Your task to perform on an android device: delete a single message in the gmail app Image 0: 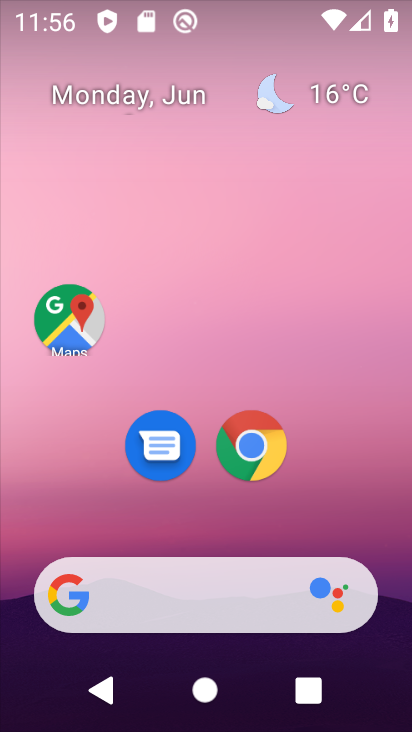
Step 0: drag from (225, 528) to (199, 40)
Your task to perform on an android device: delete a single message in the gmail app Image 1: 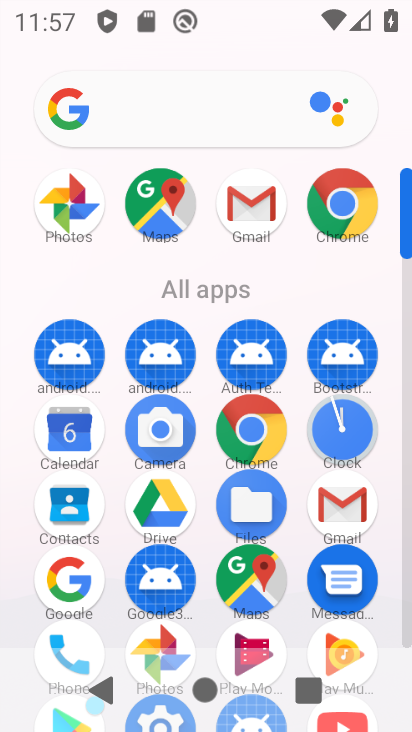
Step 1: click (328, 501)
Your task to perform on an android device: delete a single message in the gmail app Image 2: 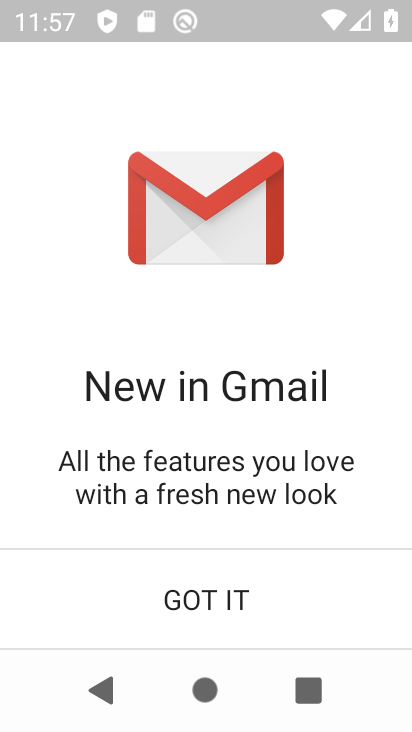
Step 2: click (246, 620)
Your task to perform on an android device: delete a single message in the gmail app Image 3: 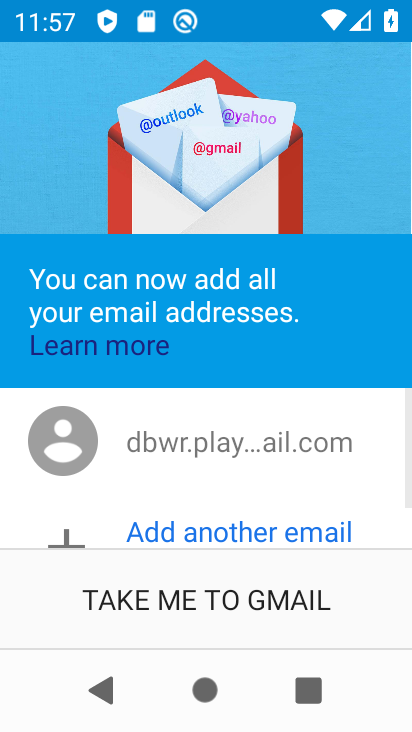
Step 3: click (246, 620)
Your task to perform on an android device: delete a single message in the gmail app Image 4: 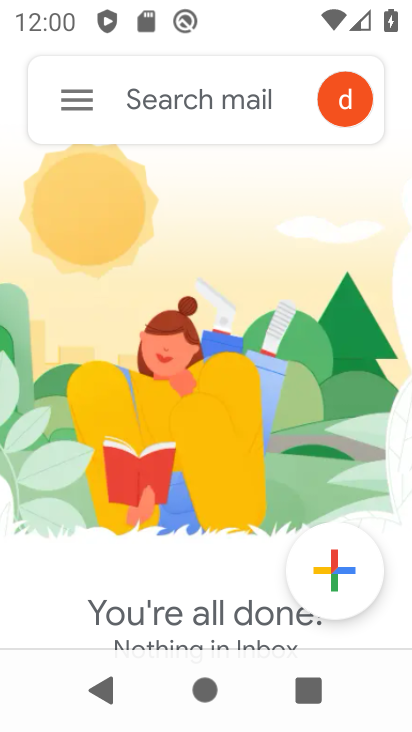
Step 4: task complete